Your task to perform on an android device: turn off wifi Image 0: 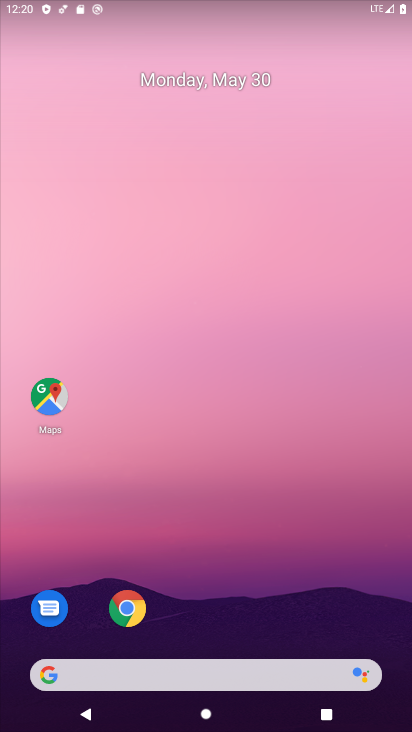
Step 0: drag from (226, 633) to (288, 9)
Your task to perform on an android device: turn off wifi Image 1: 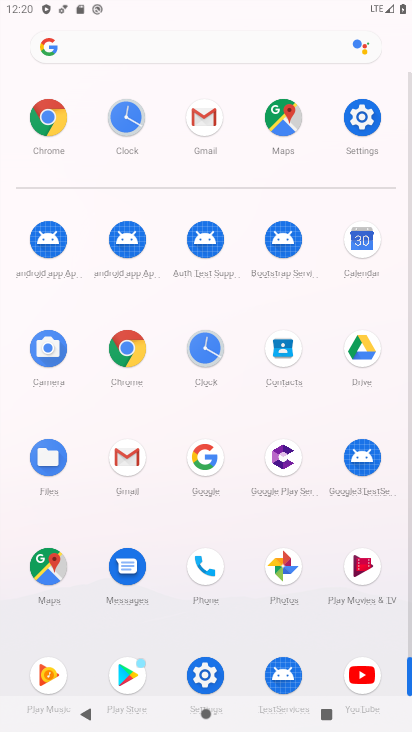
Step 1: click (357, 143)
Your task to perform on an android device: turn off wifi Image 2: 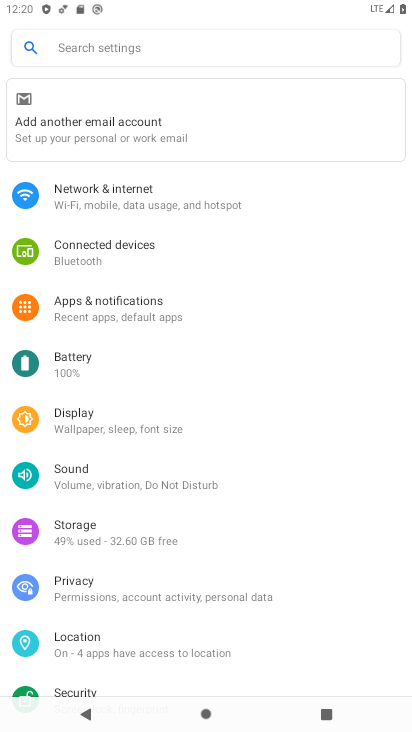
Step 2: click (122, 185)
Your task to perform on an android device: turn off wifi Image 3: 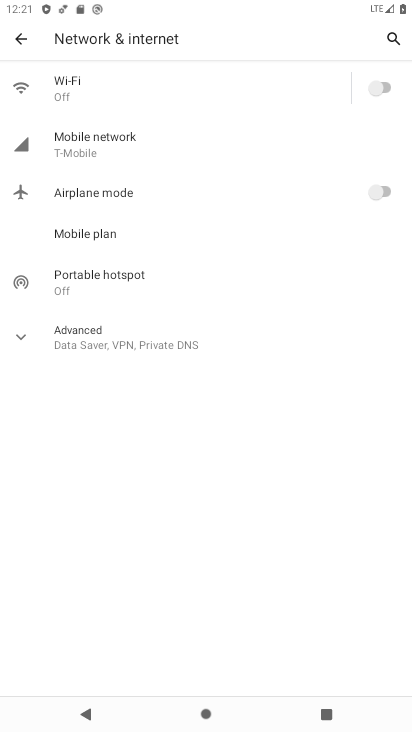
Step 3: task complete